Your task to perform on an android device: Open the phone app and click the voicemail tab. Image 0: 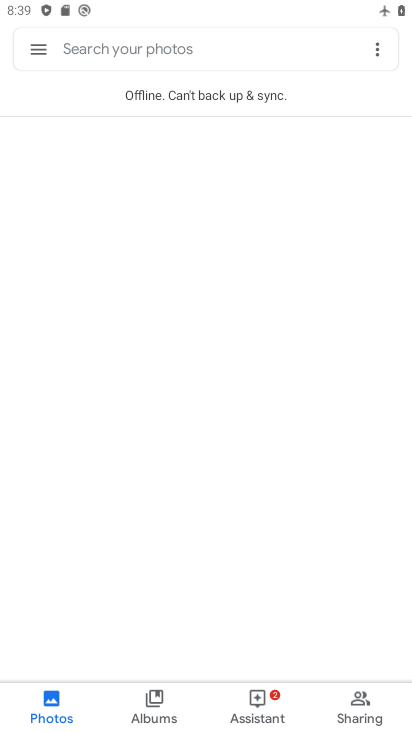
Step 0: press home button
Your task to perform on an android device: Open the phone app and click the voicemail tab. Image 1: 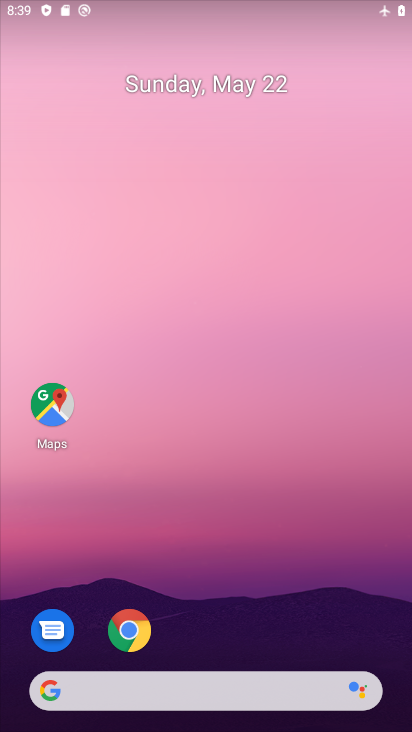
Step 1: drag from (387, 393) to (280, 58)
Your task to perform on an android device: Open the phone app and click the voicemail tab. Image 2: 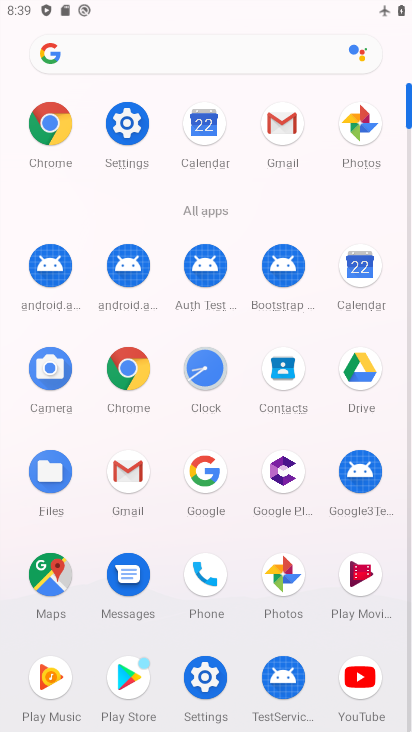
Step 2: click (194, 574)
Your task to perform on an android device: Open the phone app and click the voicemail tab. Image 3: 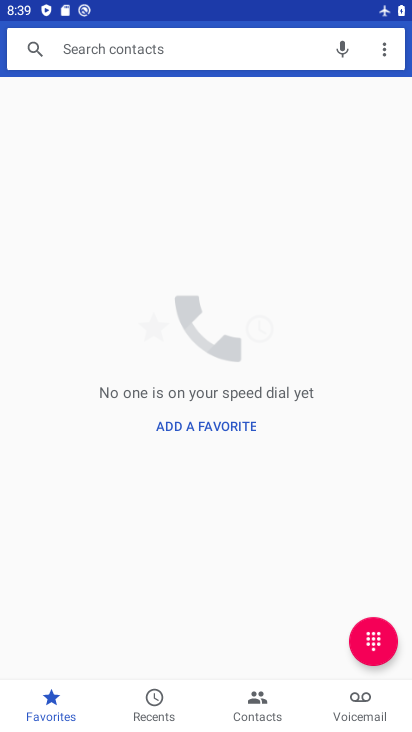
Step 3: click (348, 711)
Your task to perform on an android device: Open the phone app and click the voicemail tab. Image 4: 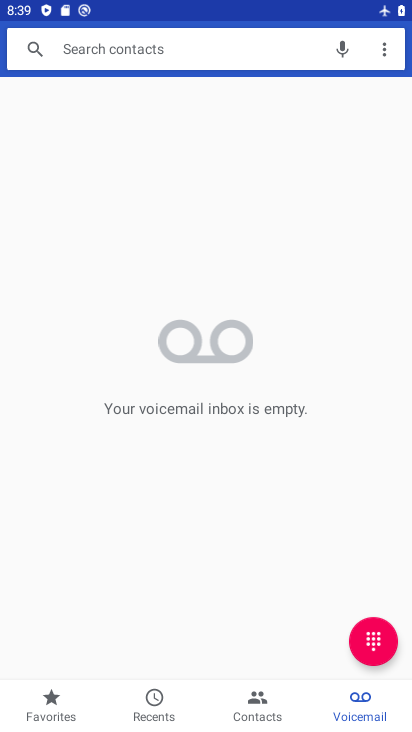
Step 4: task complete